Your task to perform on an android device: Open Android settings Image 0: 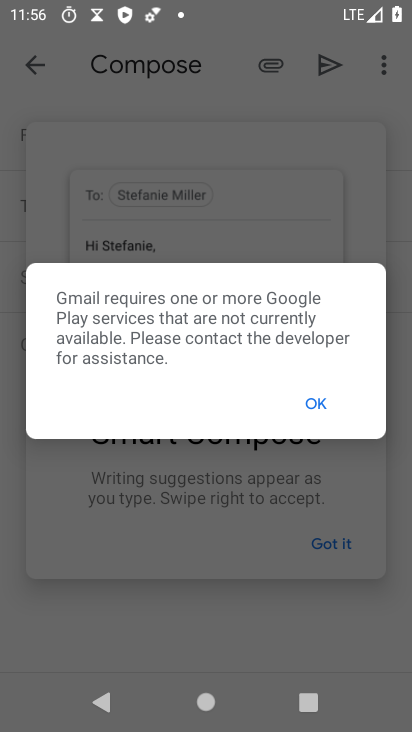
Step 0: click (304, 400)
Your task to perform on an android device: Open Android settings Image 1: 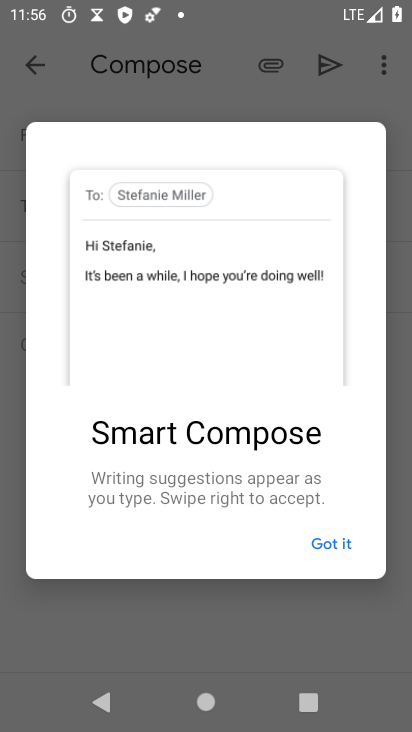
Step 1: press home button
Your task to perform on an android device: Open Android settings Image 2: 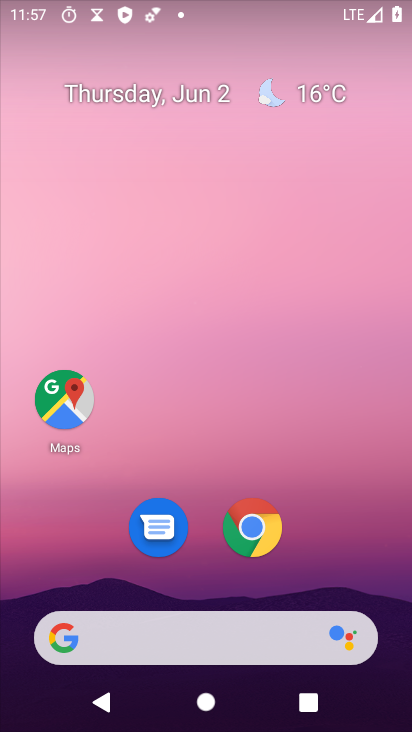
Step 2: drag from (193, 640) to (17, 123)
Your task to perform on an android device: Open Android settings Image 3: 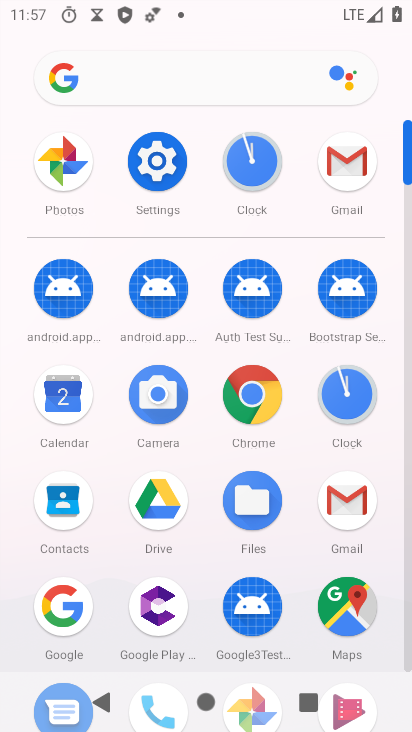
Step 3: click (163, 181)
Your task to perform on an android device: Open Android settings Image 4: 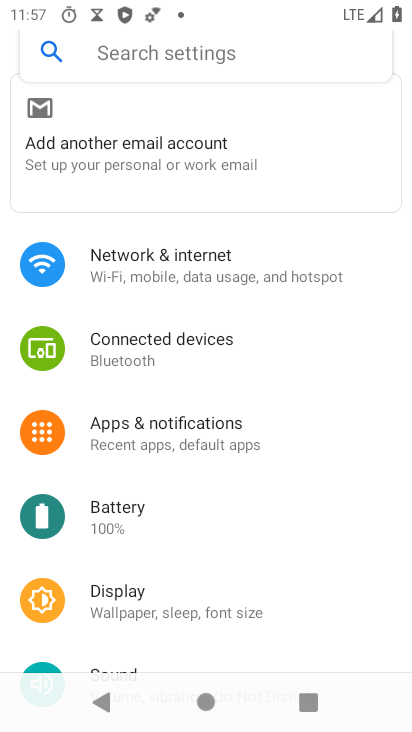
Step 4: task complete